Your task to perform on an android device: Go to Android settings Image 0: 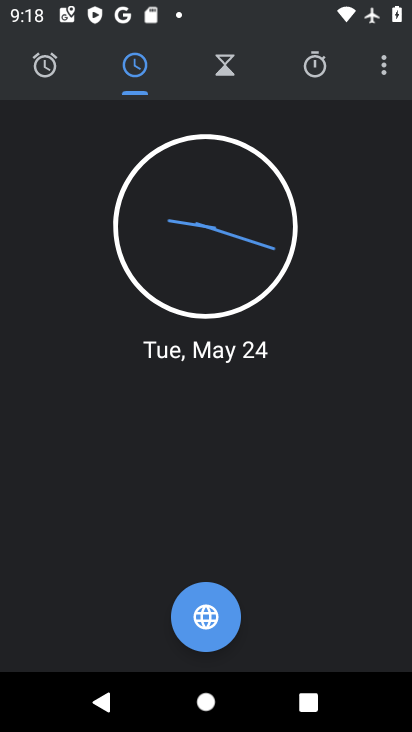
Step 0: press home button
Your task to perform on an android device: Go to Android settings Image 1: 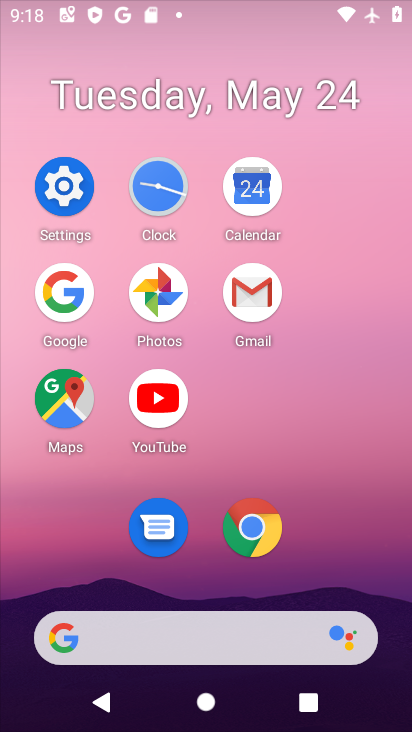
Step 1: click (78, 164)
Your task to perform on an android device: Go to Android settings Image 2: 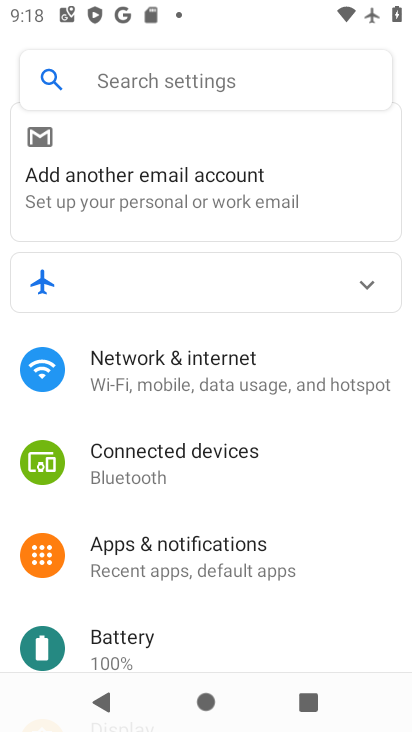
Step 2: task complete